Your task to perform on an android device: add a label to a message in the gmail app Image 0: 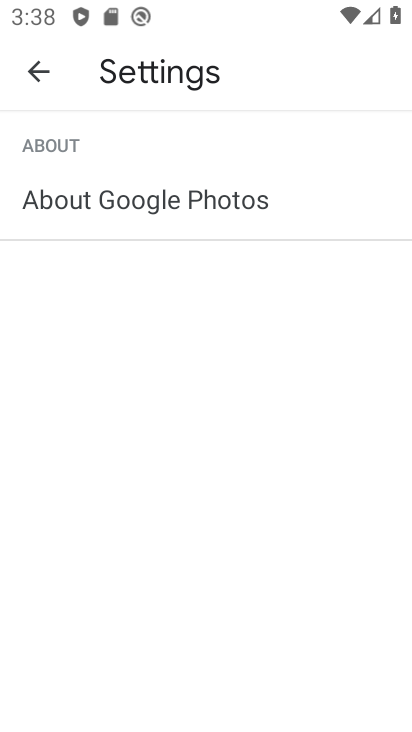
Step 0: press home button
Your task to perform on an android device: add a label to a message in the gmail app Image 1: 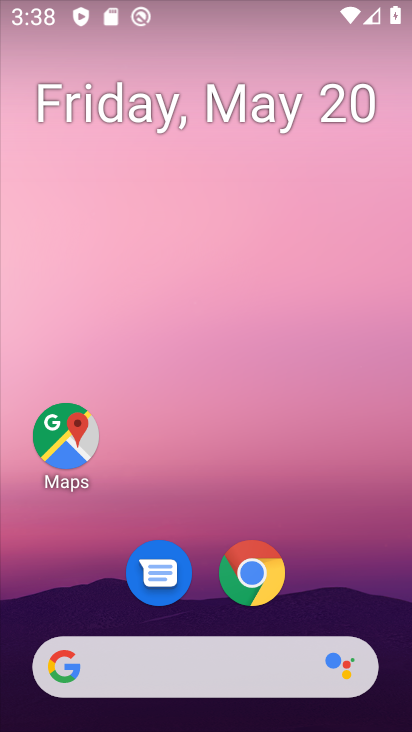
Step 1: drag from (393, 628) to (311, 28)
Your task to perform on an android device: add a label to a message in the gmail app Image 2: 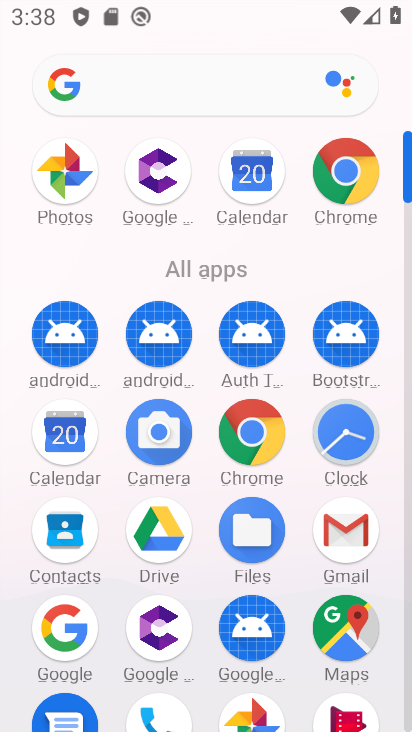
Step 2: click (342, 538)
Your task to perform on an android device: add a label to a message in the gmail app Image 3: 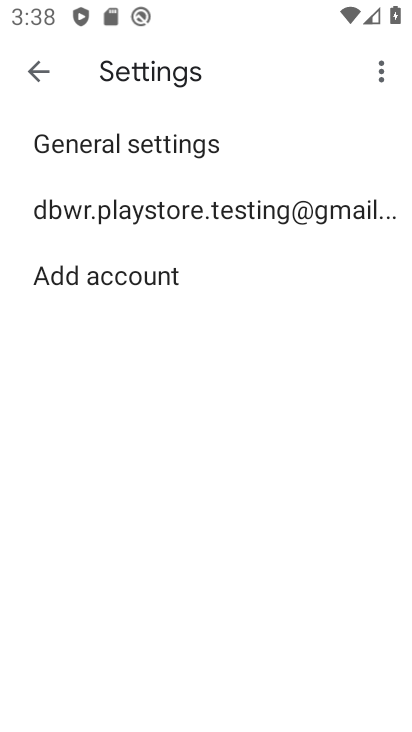
Step 3: click (36, 85)
Your task to perform on an android device: add a label to a message in the gmail app Image 4: 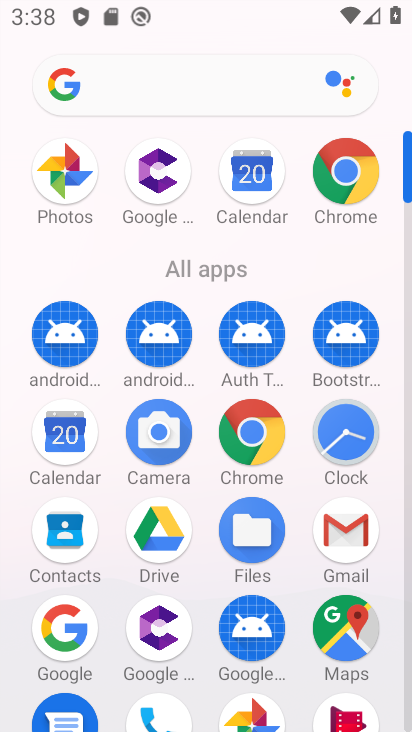
Step 4: click (350, 510)
Your task to perform on an android device: add a label to a message in the gmail app Image 5: 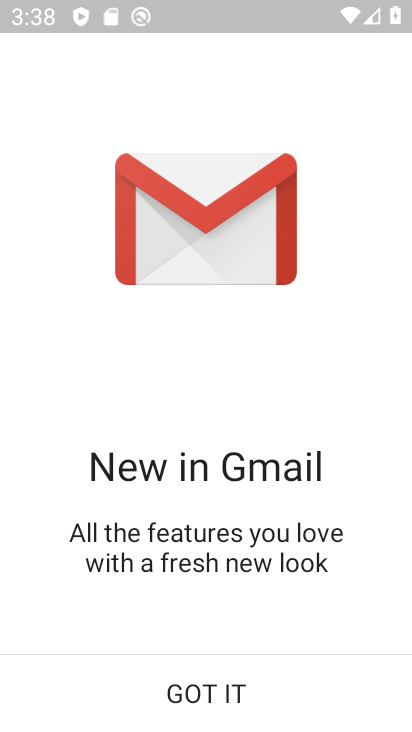
Step 5: click (202, 709)
Your task to perform on an android device: add a label to a message in the gmail app Image 6: 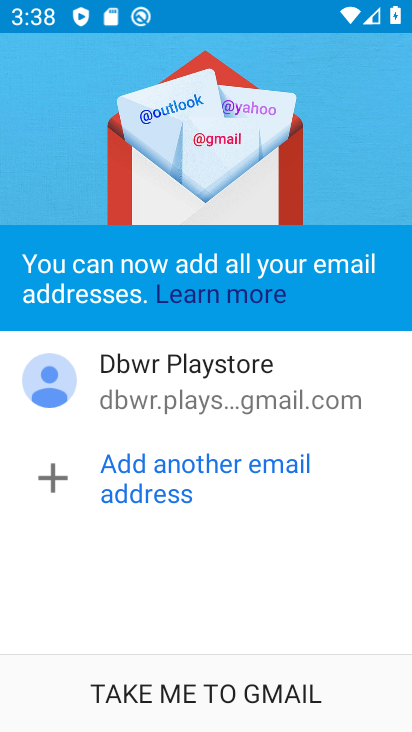
Step 6: click (202, 709)
Your task to perform on an android device: add a label to a message in the gmail app Image 7: 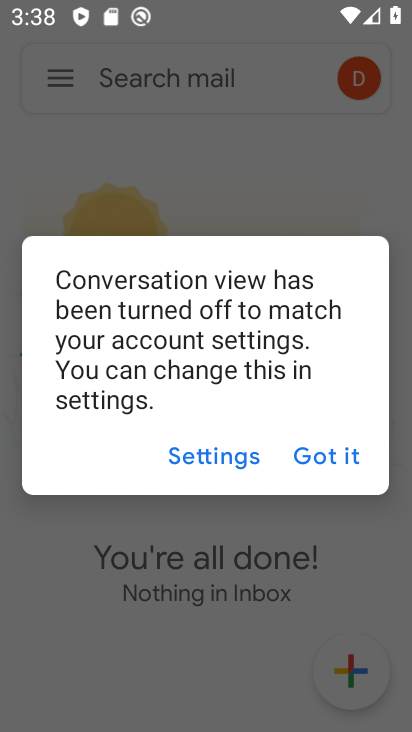
Step 7: click (336, 450)
Your task to perform on an android device: add a label to a message in the gmail app Image 8: 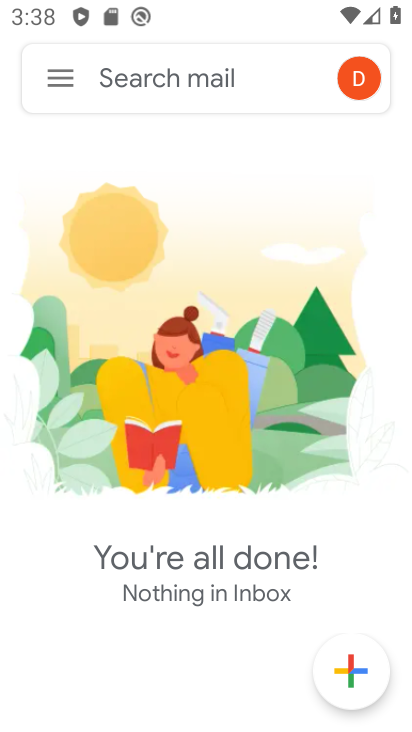
Step 8: task complete